Your task to perform on an android device: Open the stopwatch Image 0: 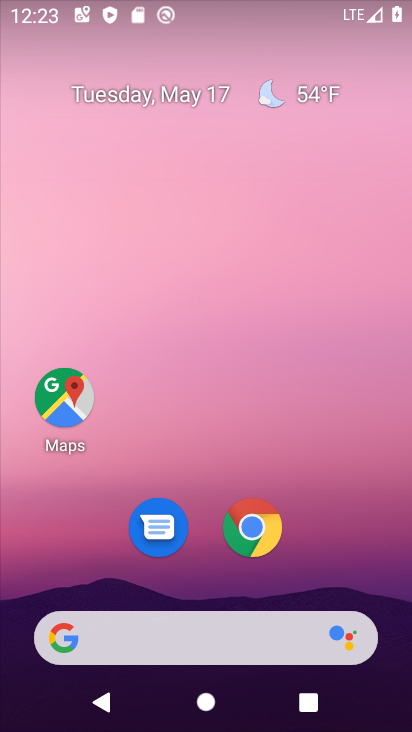
Step 0: drag from (290, 675) to (211, 110)
Your task to perform on an android device: Open the stopwatch Image 1: 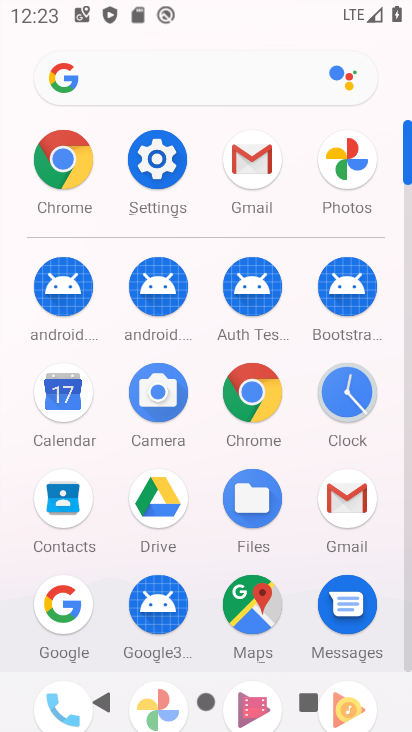
Step 1: click (339, 385)
Your task to perform on an android device: Open the stopwatch Image 2: 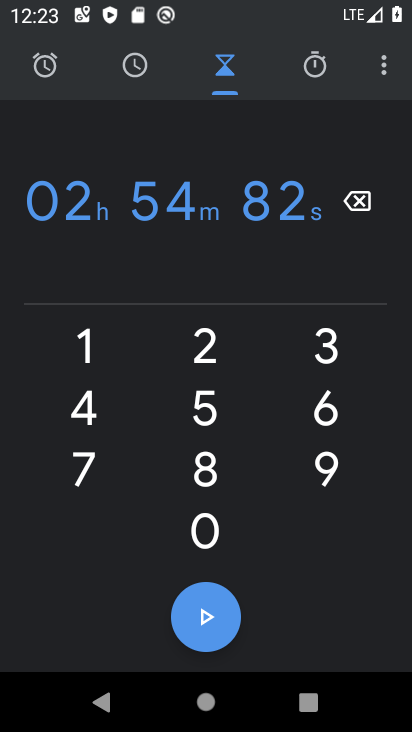
Step 2: click (301, 105)
Your task to perform on an android device: Open the stopwatch Image 3: 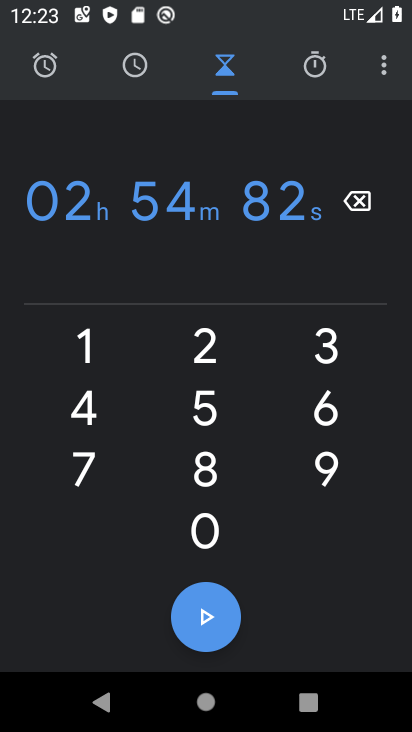
Step 3: click (294, 70)
Your task to perform on an android device: Open the stopwatch Image 4: 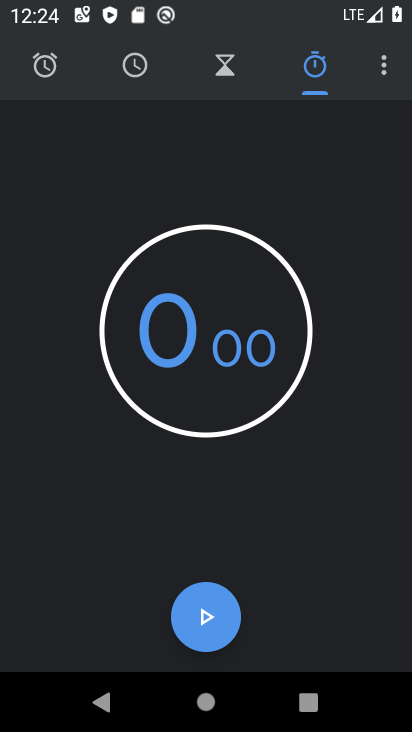
Step 4: click (176, 634)
Your task to perform on an android device: Open the stopwatch Image 5: 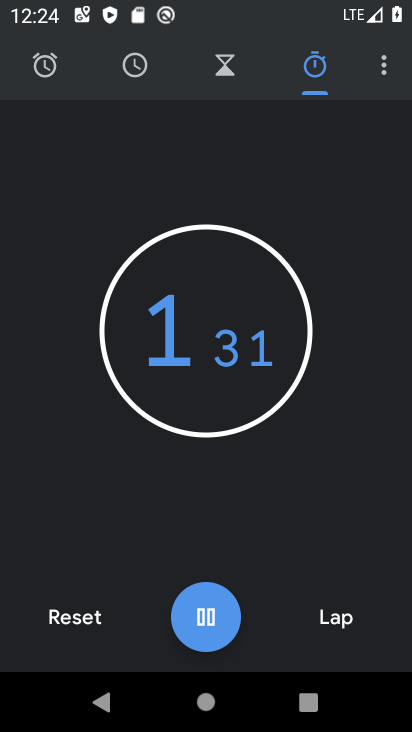
Step 5: click (192, 619)
Your task to perform on an android device: Open the stopwatch Image 6: 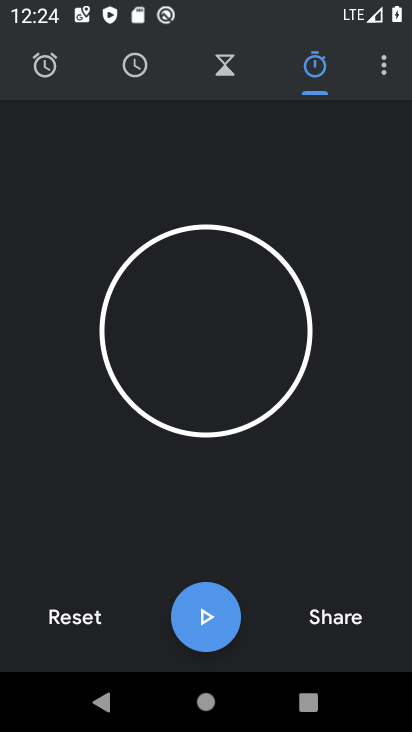
Step 6: task complete